Your task to perform on an android device: Open Google Chrome and click the shortcut for Amazon.com Image 0: 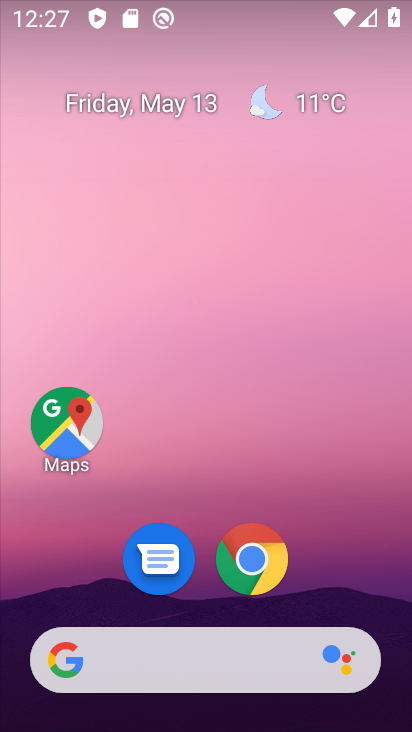
Step 0: click (256, 563)
Your task to perform on an android device: Open Google Chrome and click the shortcut for Amazon.com Image 1: 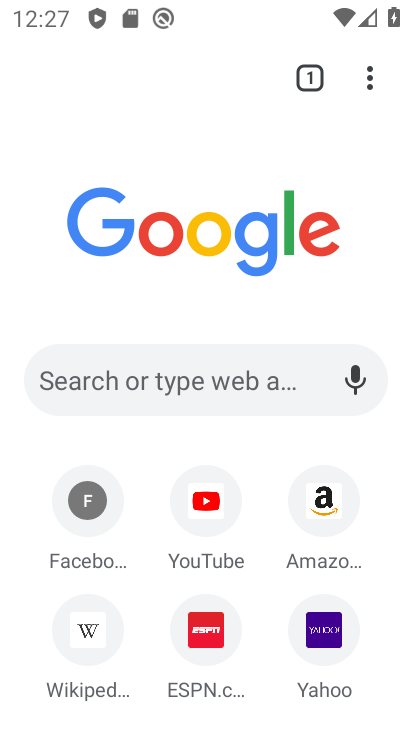
Step 1: click (319, 501)
Your task to perform on an android device: Open Google Chrome and click the shortcut for Amazon.com Image 2: 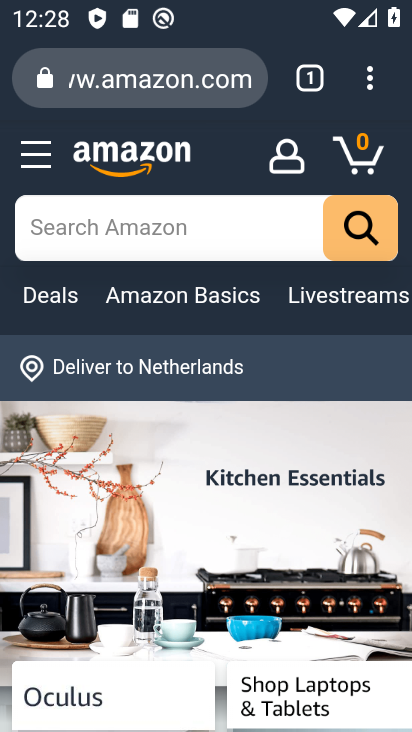
Step 2: task complete